Your task to perform on an android device: Open Maps and search for coffee Image 0: 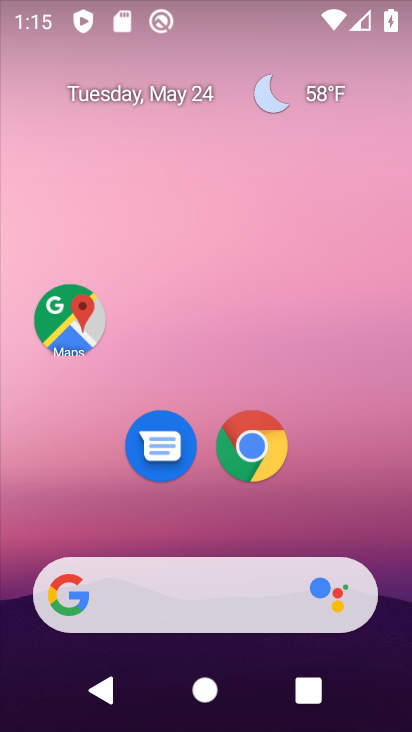
Step 0: drag from (175, 606) to (314, 65)
Your task to perform on an android device: Open Maps and search for coffee Image 1: 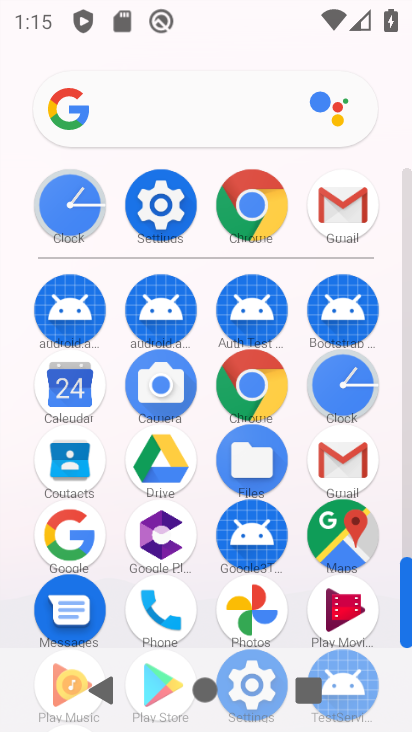
Step 1: click (348, 531)
Your task to perform on an android device: Open Maps and search for coffee Image 2: 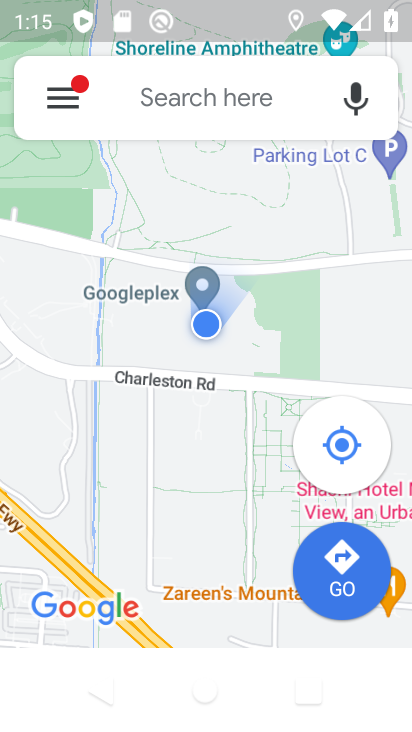
Step 2: click (272, 111)
Your task to perform on an android device: Open Maps and search for coffee Image 3: 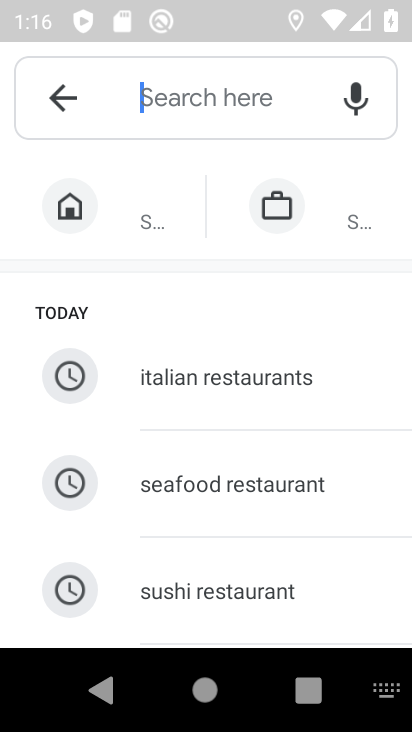
Step 3: type "coffee"
Your task to perform on an android device: Open Maps and search for coffee Image 4: 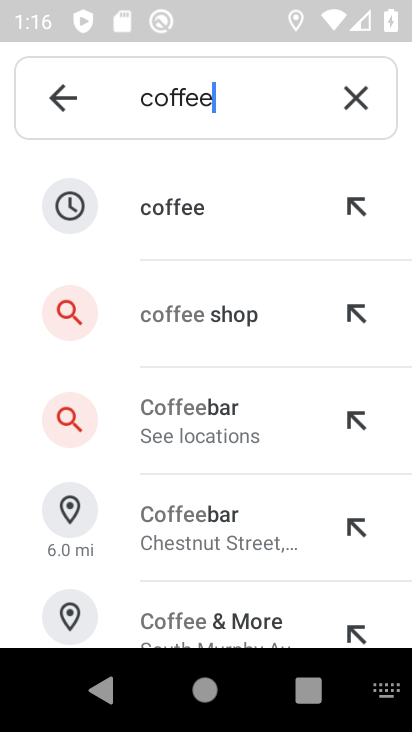
Step 4: click (209, 217)
Your task to perform on an android device: Open Maps and search for coffee Image 5: 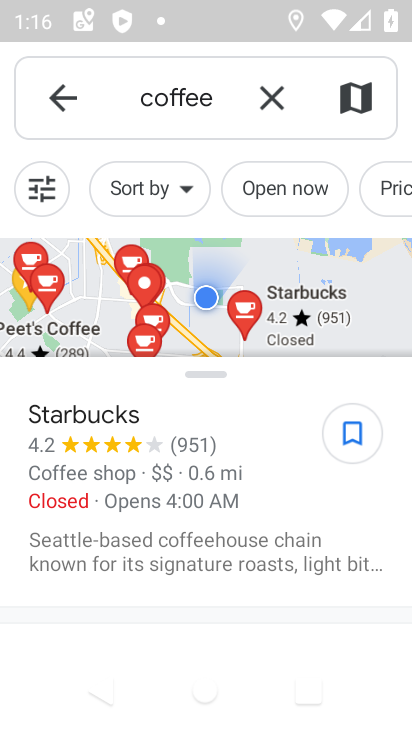
Step 5: task complete